Your task to perform on an android device: Search for the best selling book on Amazon. Image 0: 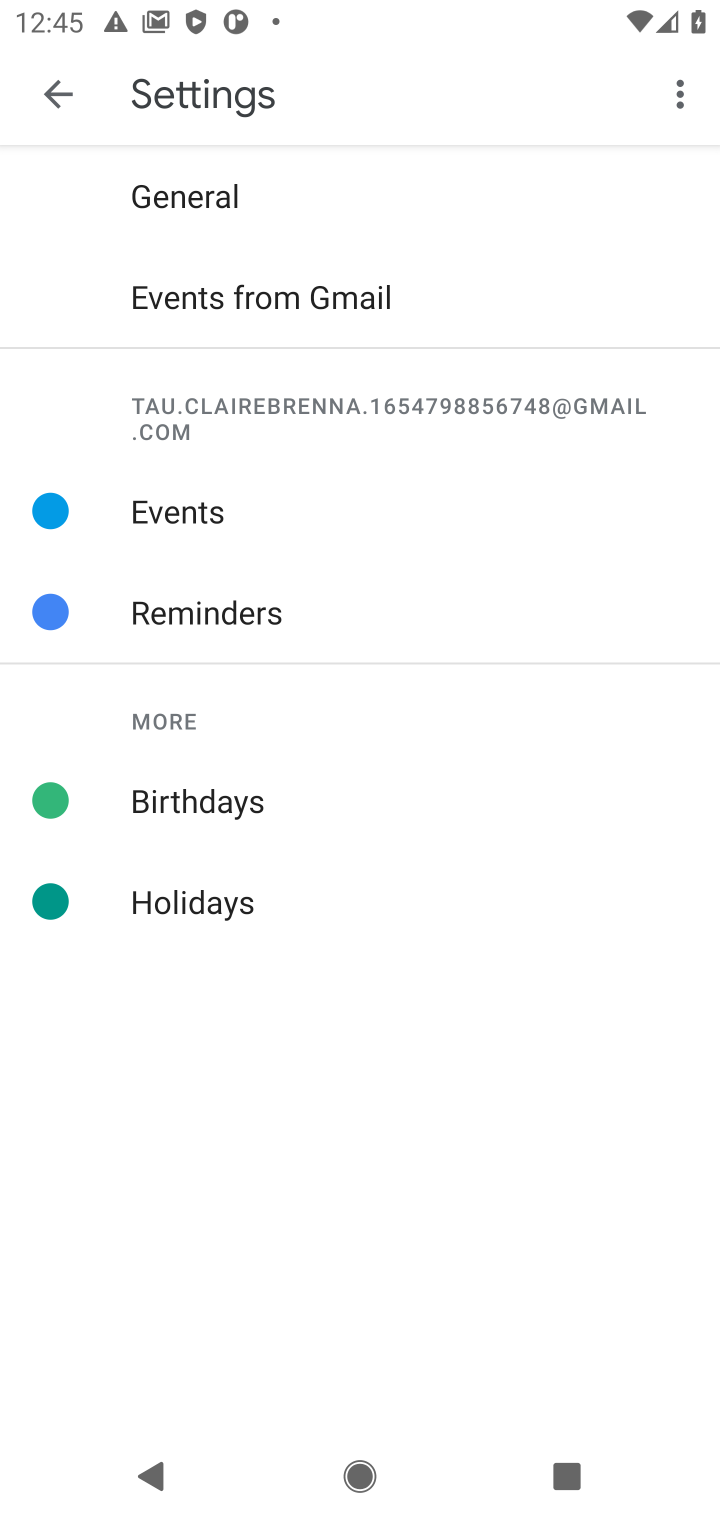
Step 0: press home button
Your task to perform on an android device: Search for the best selling book on Amazon. Image 1: 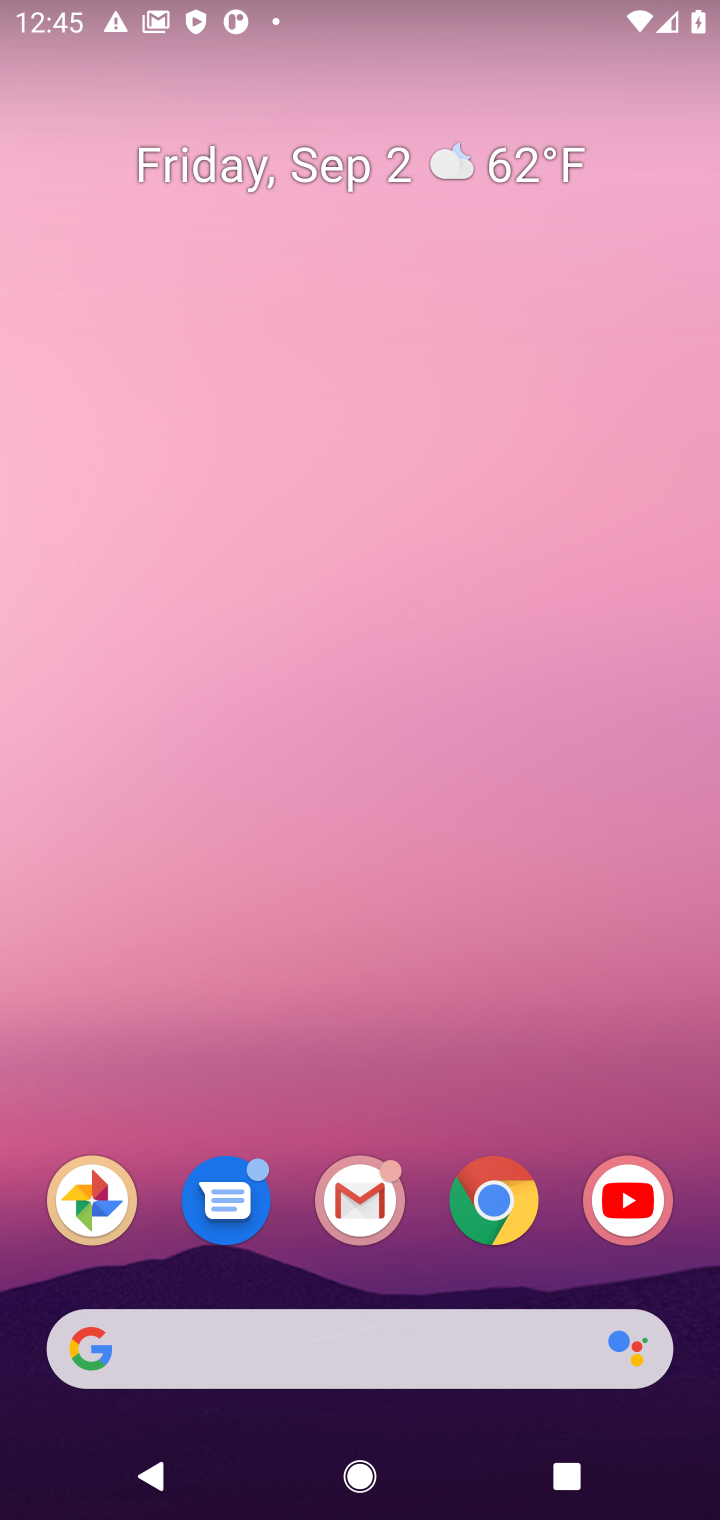
Step 1: click (504, 1211)
Your task to perform on an android device: Search for the best selling book on Amazon. Image 2: 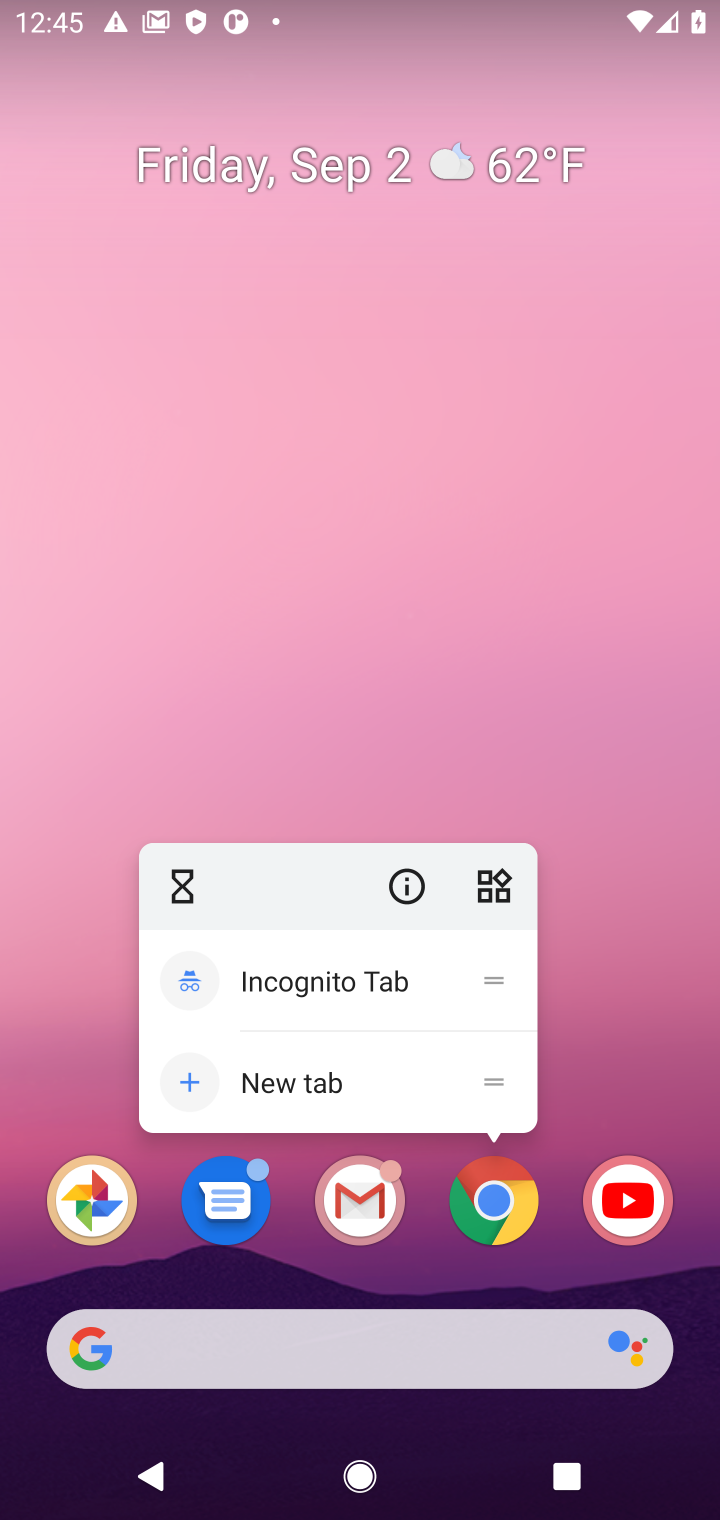
Step 2: click (504, 1213)
Your task to perform on an android device: Search for the best selling book on Amazon. Image 3: 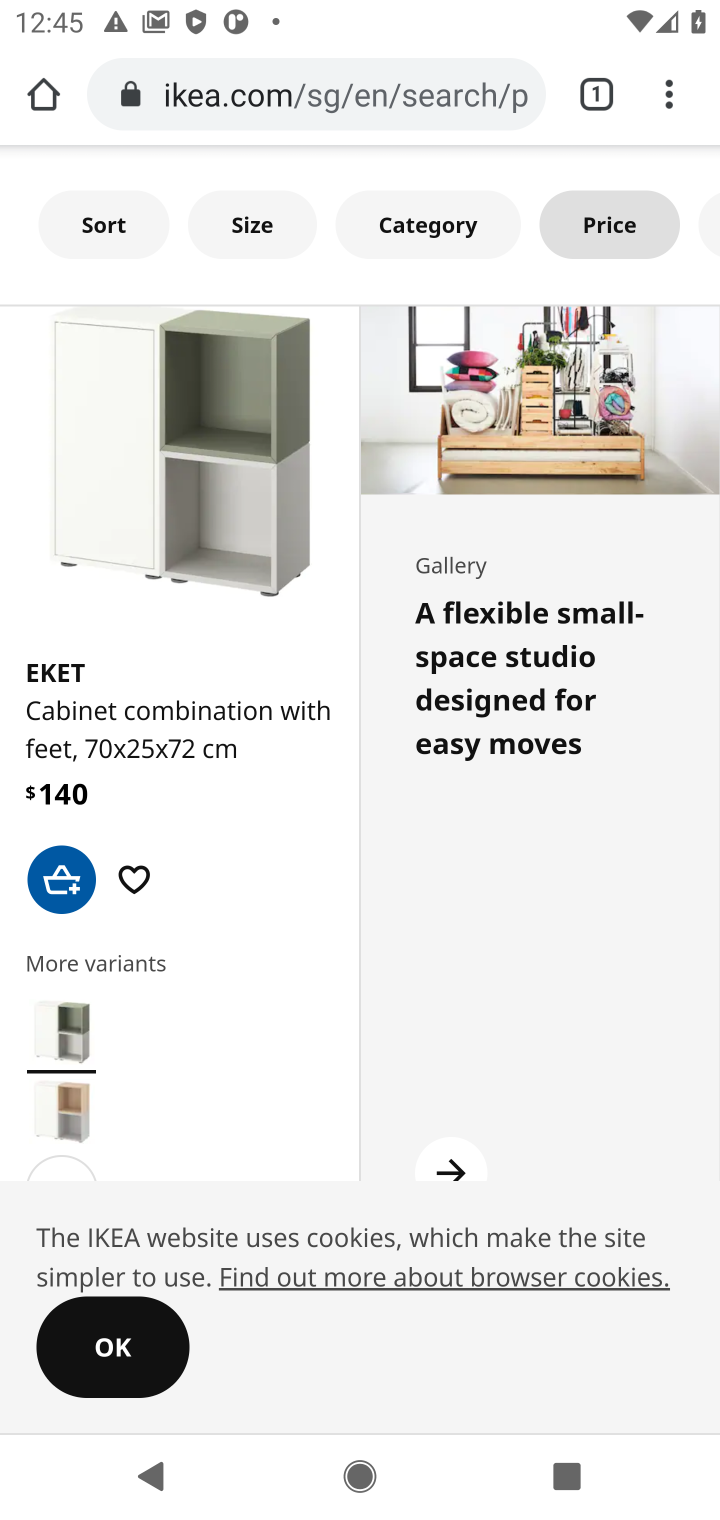
Step 3: click (409, 89)
Your task to perform on an android device: Search for the best selling book on Amazon. Image 4: 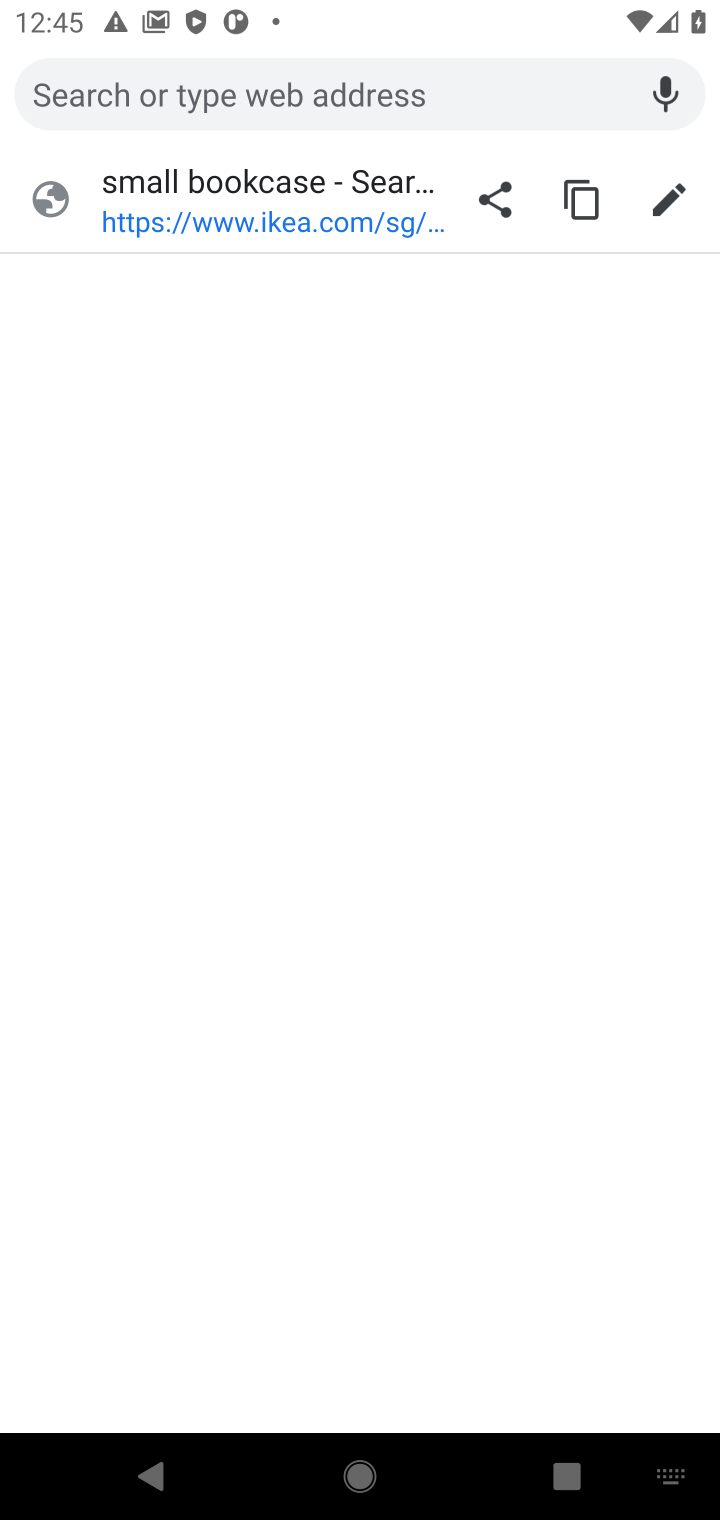
Step 4: type "Amazon"
Your task to perform on an android device: Search for the best selling book on Amazon. Image 5: 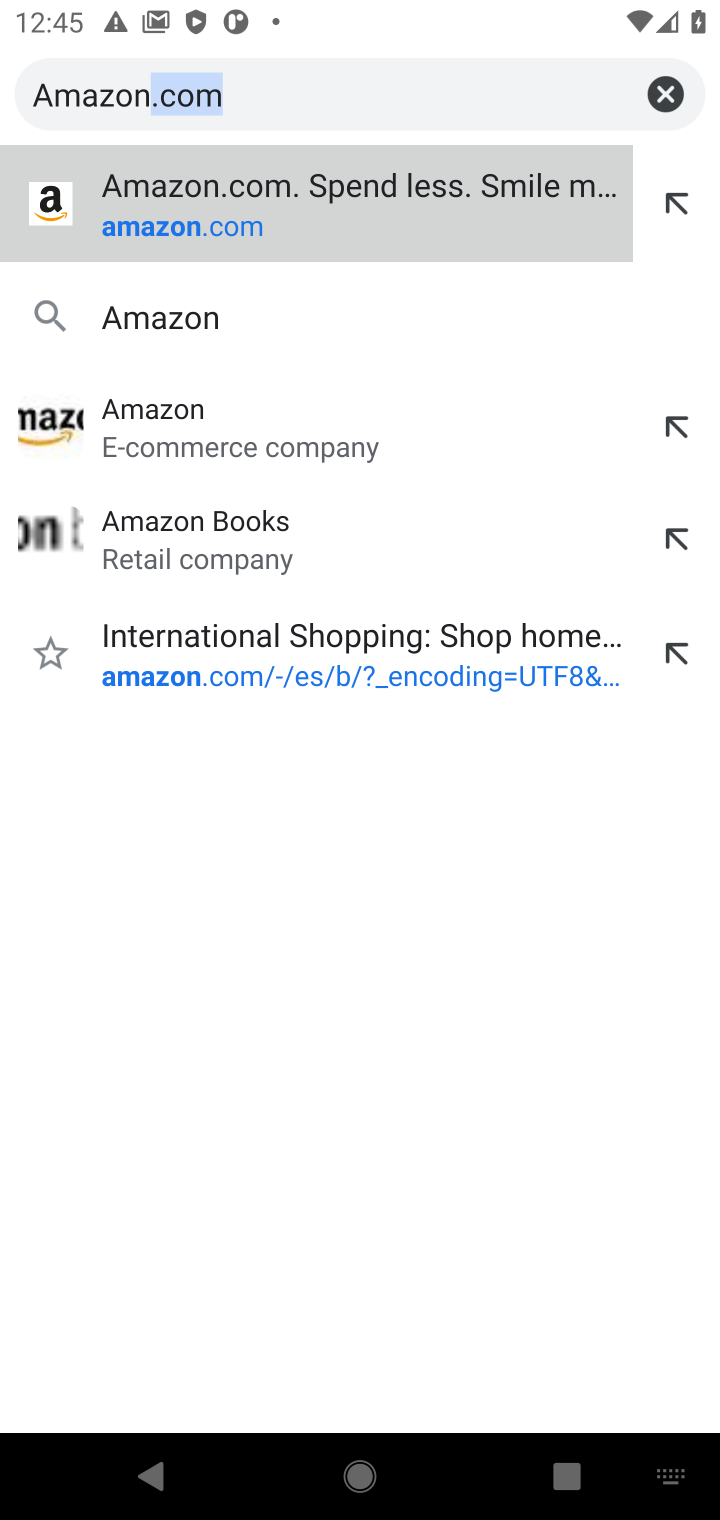
Step 5: press enter
Your task to perform on an android device: Search for the best selling book on Amazon. Image 6: 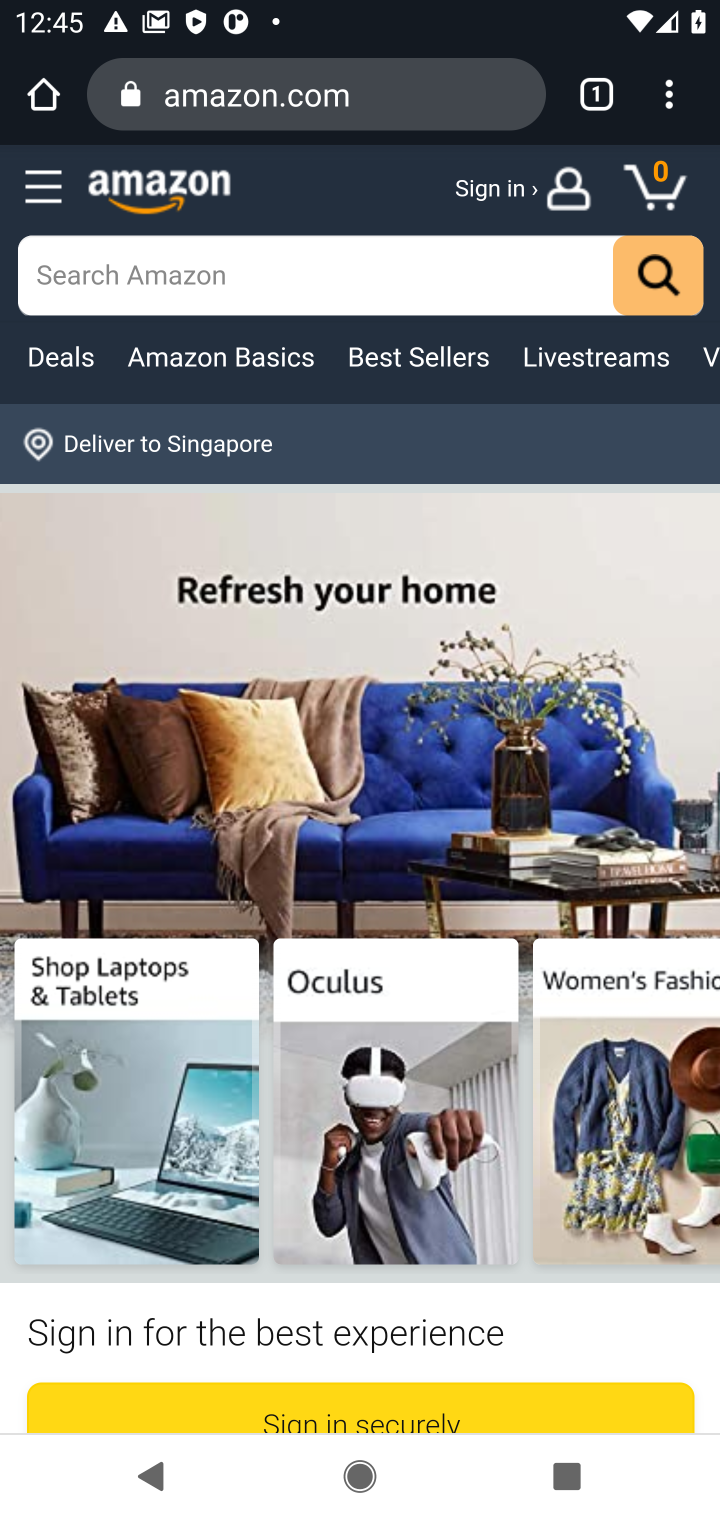
Step 6: click (382, 285)
Your task to perform on an android device: Search for the best selling book on Amazon. Image 7: 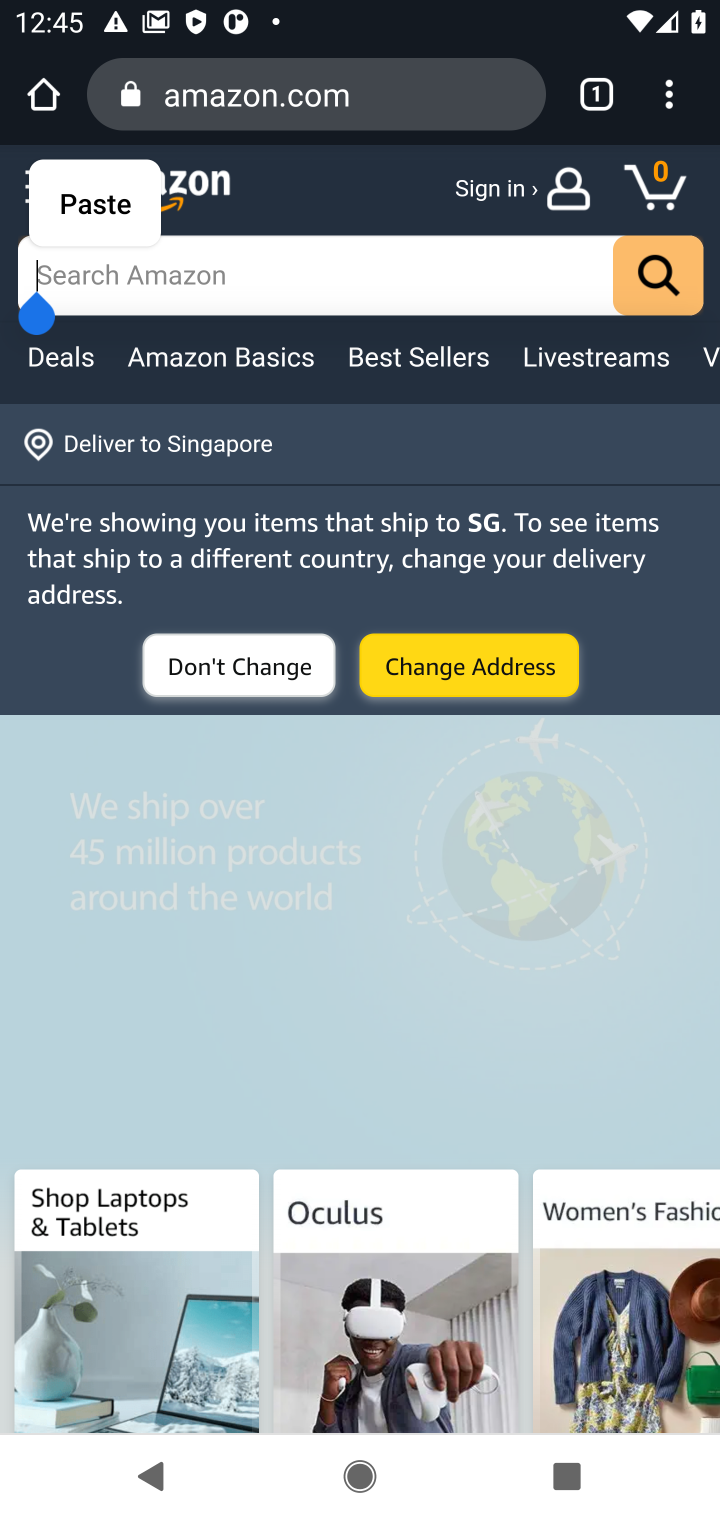
Step 7: click (390, 272)
Your task to perform on an android device: Search for the best selling book on Amazon. Image 8: 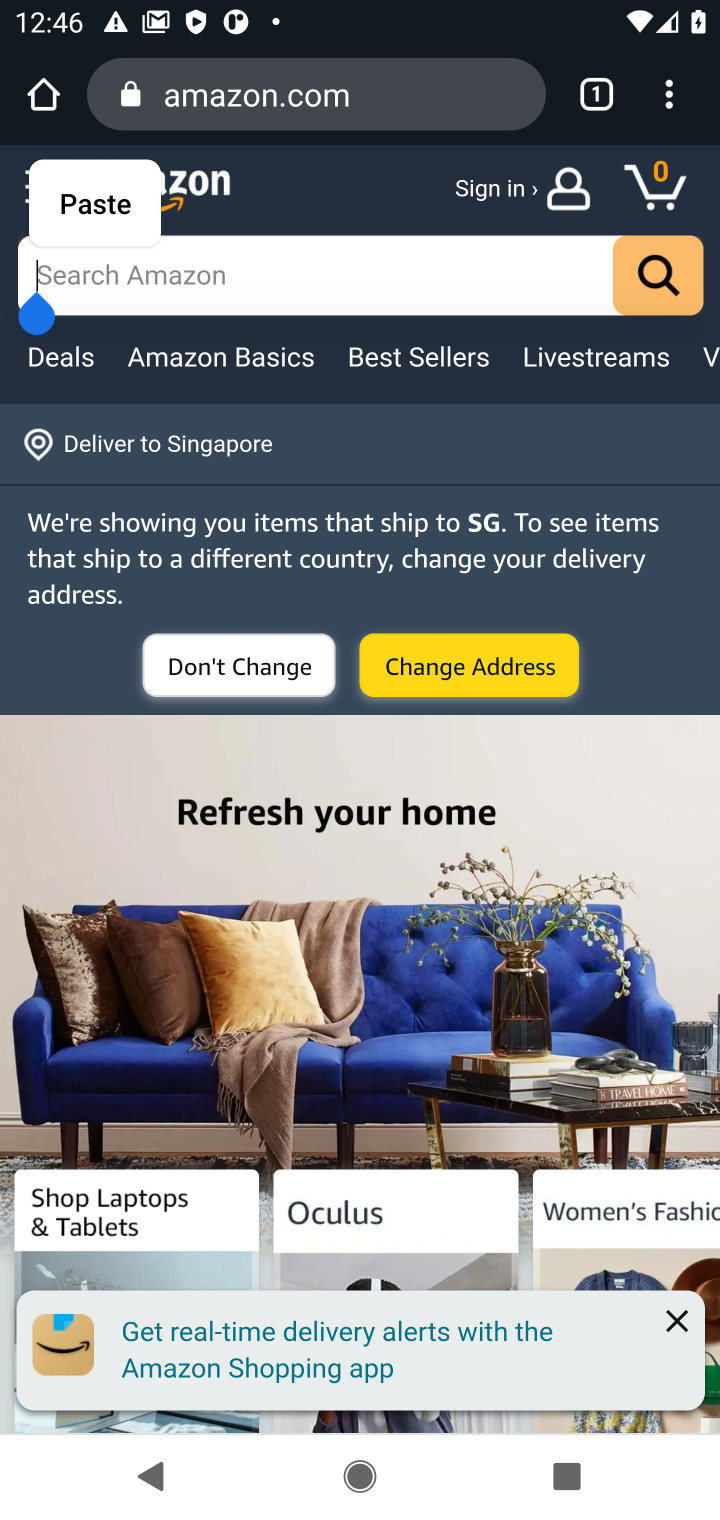
Step 8: type "best selling book"
Your task to perform on an android device: Search for the best selling book on Amazon. Image 9: 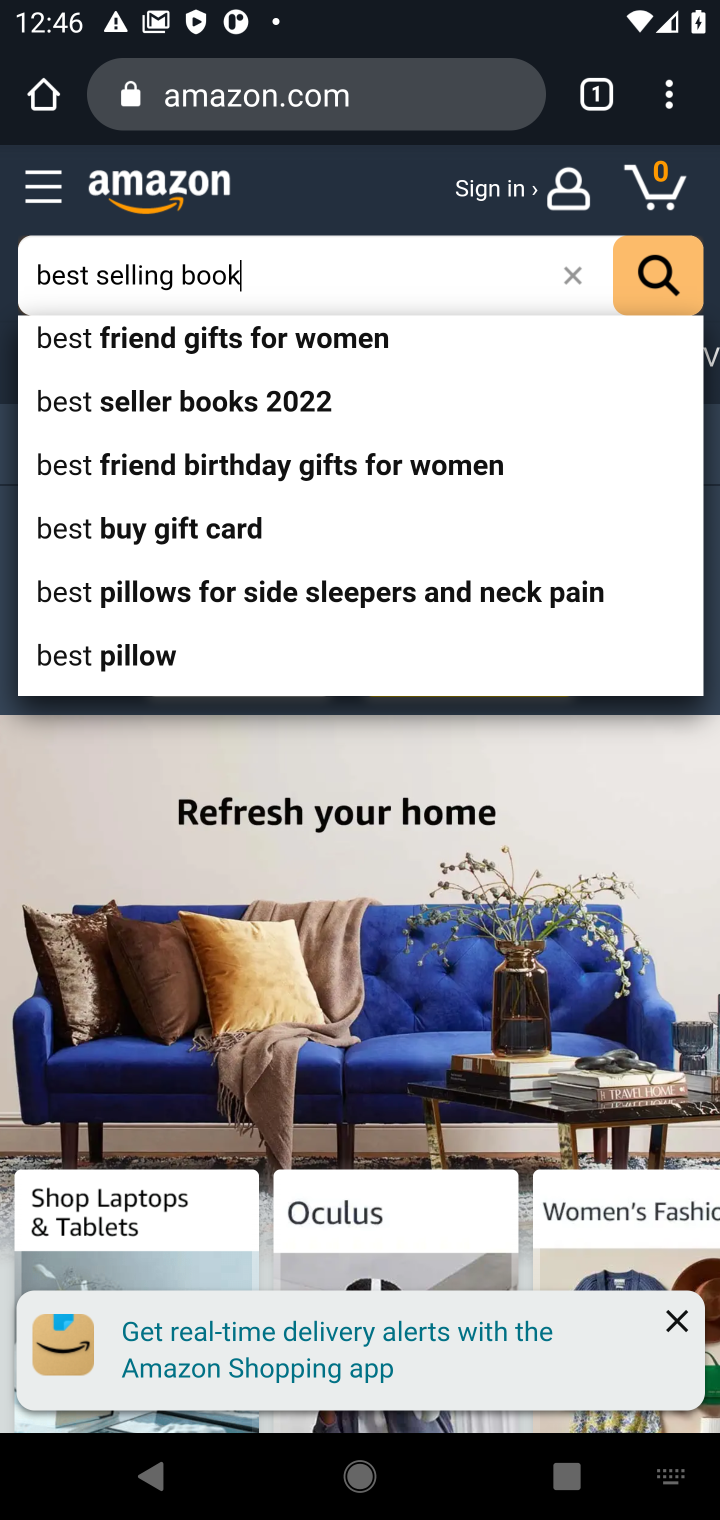
Step 9: press enter
Your task to perform on an android device: Search for the best selling book on Amazon. Image 10: 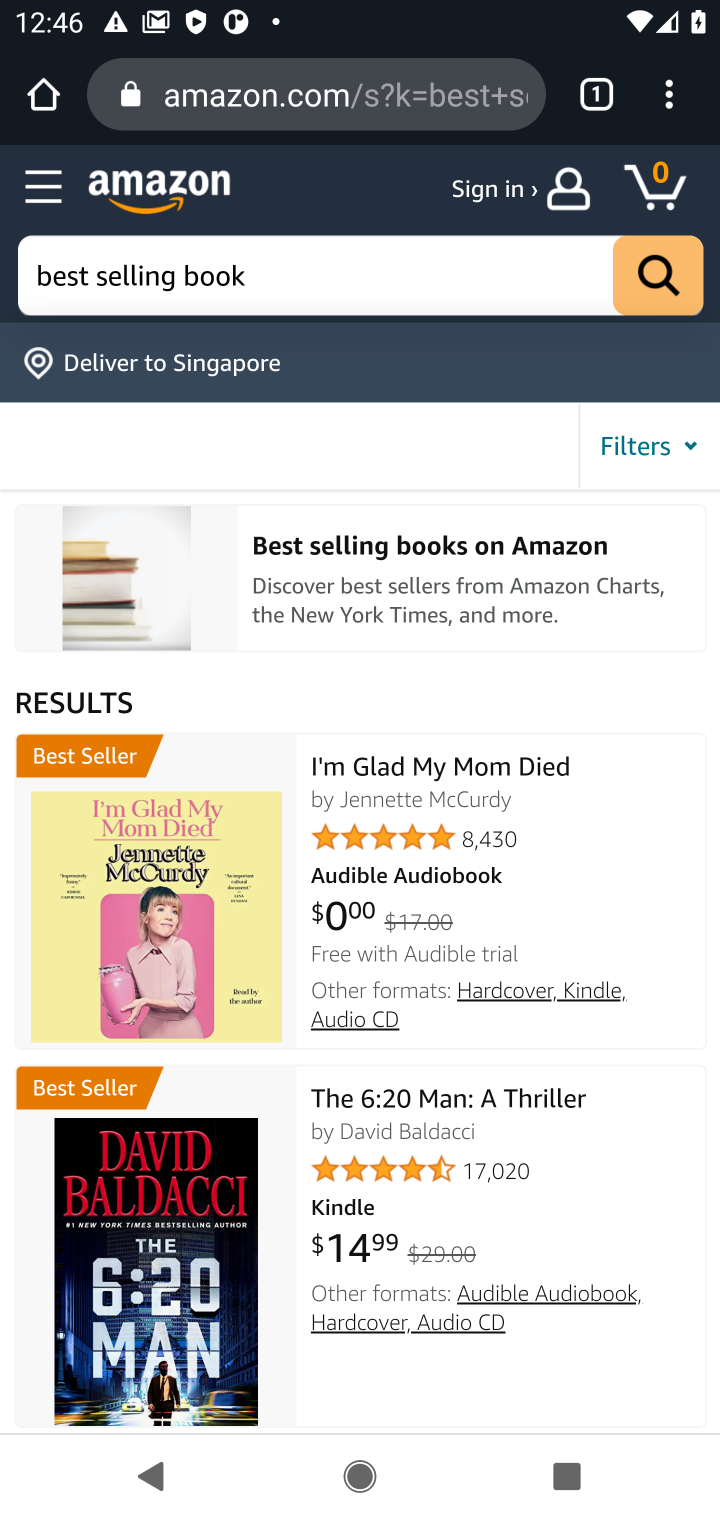
Step 10: task complete